Your task to perform on an android device: Open privacy settings Image 0: 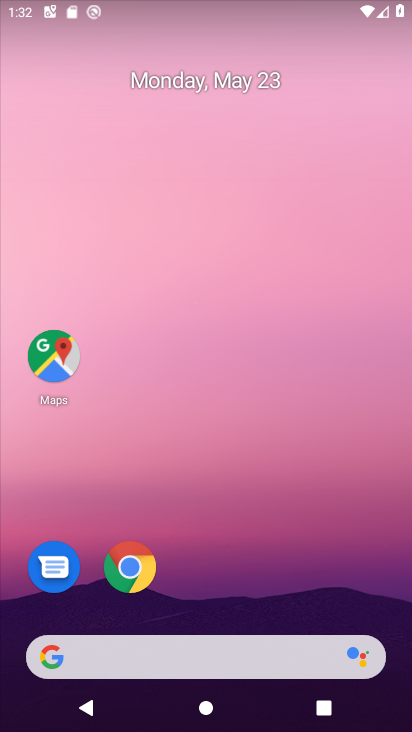
Step 0: drag from (245, 617) to (310, 202)
Your task to perform on an android device: Open privacy settings Image 1: 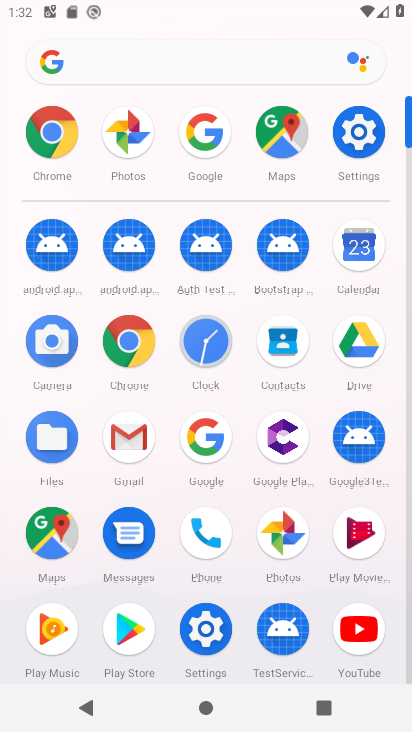
Step 1: click (354, 144)
Your task to perform on an android device: Open privacy settings Image 2: 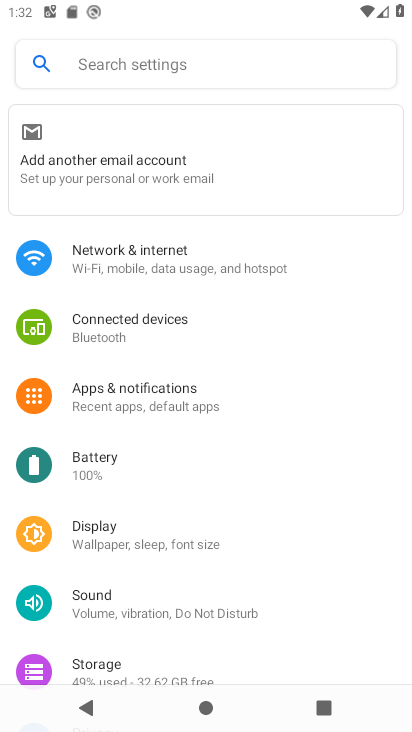
Step 2: drag from (188, 492) to (222, 338)
Your task to perform on an android device: Open privacy settings Image 3: 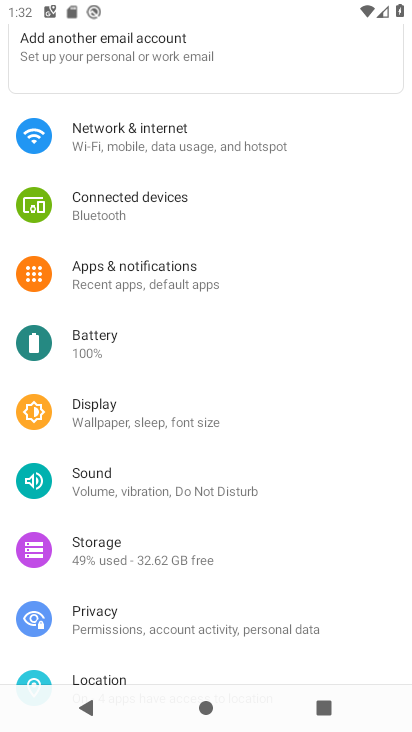
Step 3: click (149, 629)
Your task to perform on an android device: Open privacy settings Image 4: 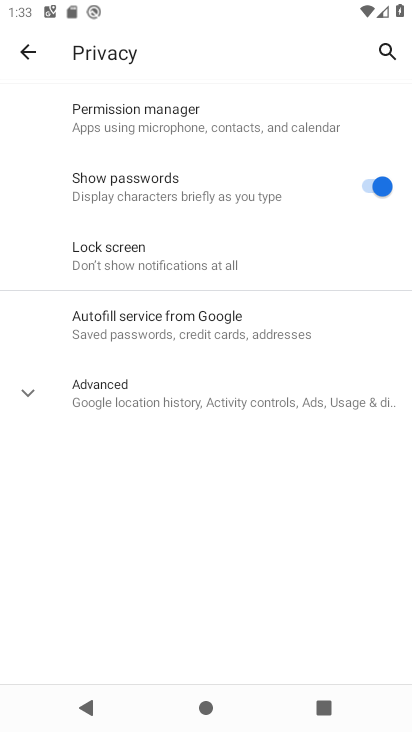
Step 4: task complete